Your task to perform on an android device: search for starred emails in the gmail app Image 0: 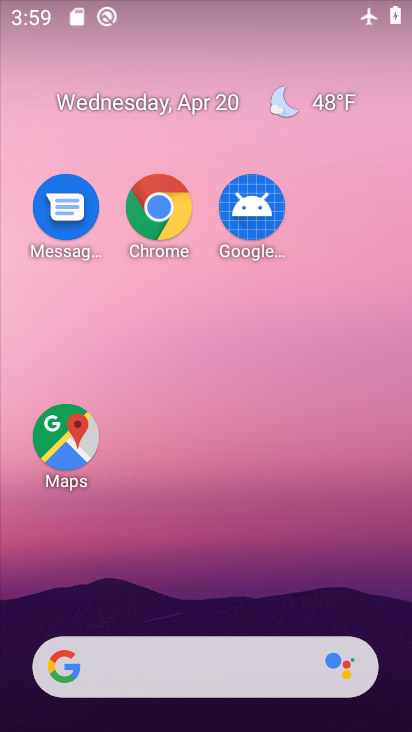
Step 0: drag from (249, 583) to (251, 2)
Your task to perform on an android device: search for starred emails in the gmail app Image 1: 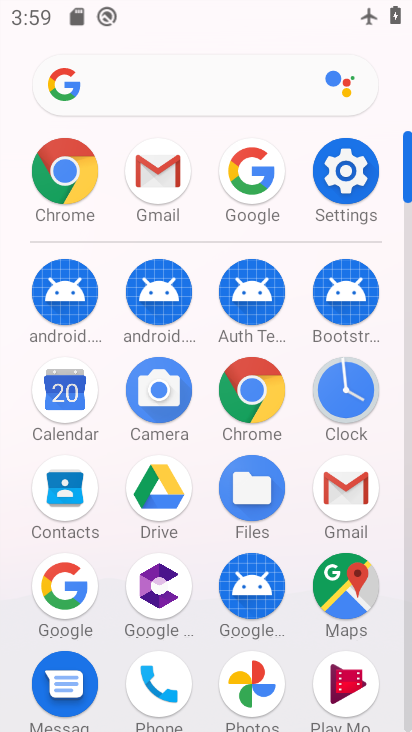
Step 1: drag from (223, 394) to (223, 269)
Your task to perform on an android device: search for starred emails in the gmail app Image 2: 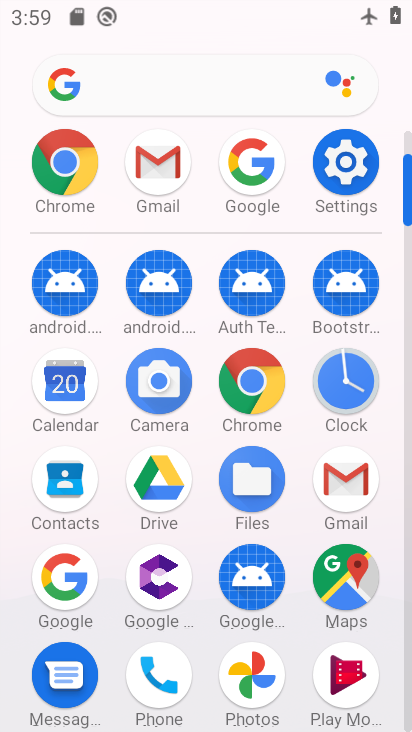
Step 2: drag from (251, 527) to (236, 292)
Your task to perform on an android device: search for starred emails in the gmail app Image 3: 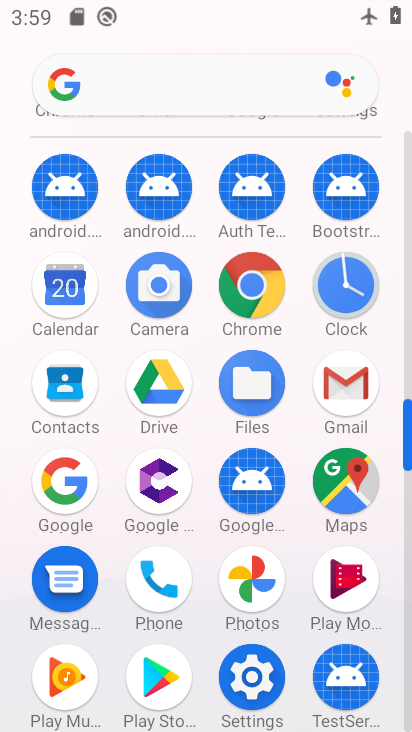
Step 3: click (351, 405)
Your task to perform on an android device: search for starred emails in the gmail app Image 4: 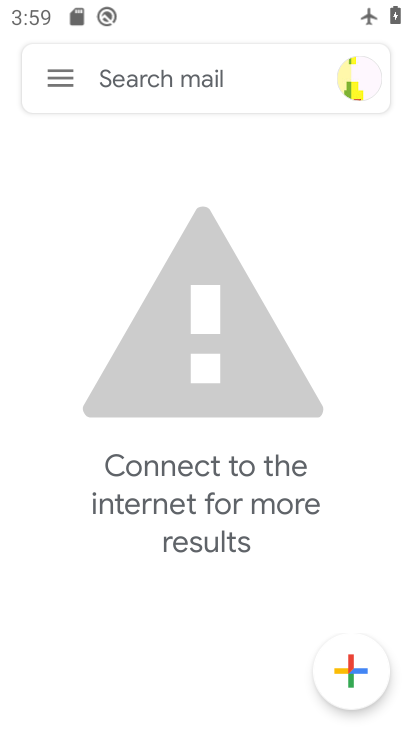
Step 4: click (64, 76)
Your task to perform on an android device: search for starred emails in the gmail app Image 5: 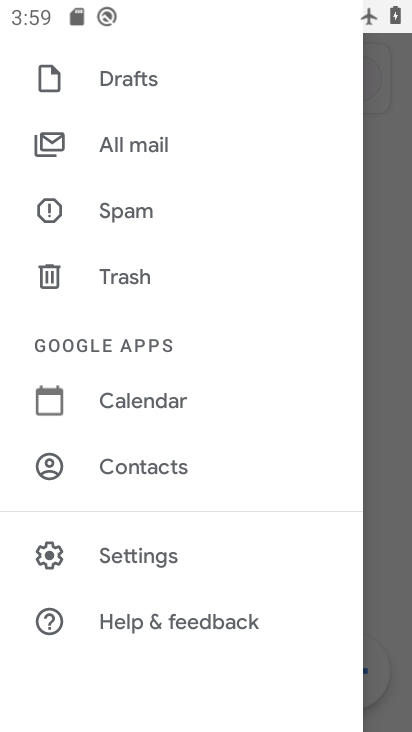
Step 5: drag from (152, 383) to (140, 698)
Your task to perform on an android device: search for starred emails in the gmail app Image 6: 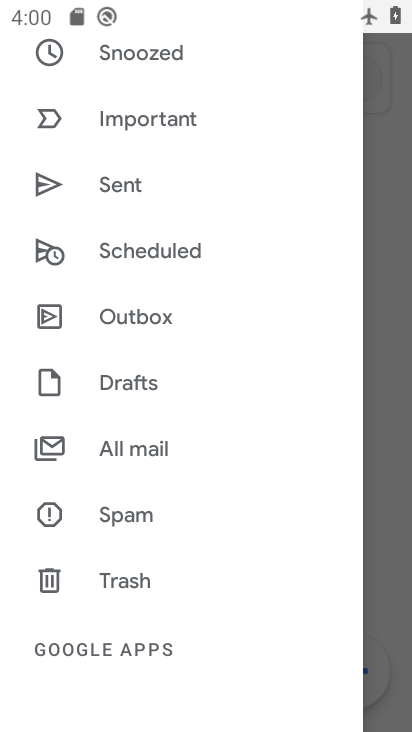
Step 6: drag from (140, 215) to (159, 659)
Your task to perform on an android device: search for starred emails in the gmail app Image 7: 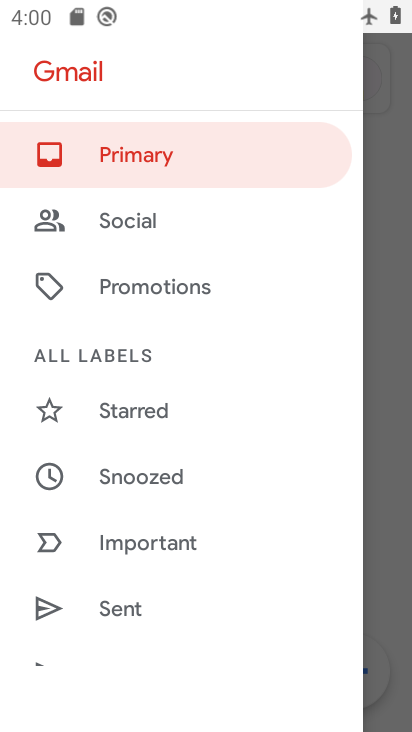
Step 7: click (160, 411)
Your task to perform on an android device: search for starred emails in the gmail app Image 8: 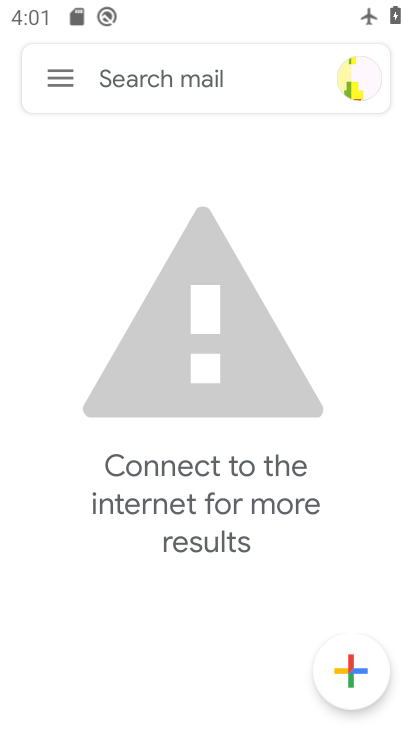
Step 8: task complete